Your task to perform on an android device: toggle translation in the chrome app Image 0: 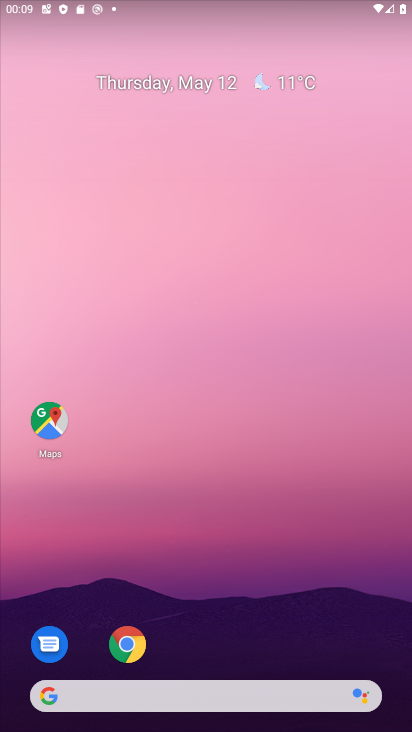
Step 0: click (126, 636)
Your task to perform on an android device: toggle translation in the chrome app Image 1: 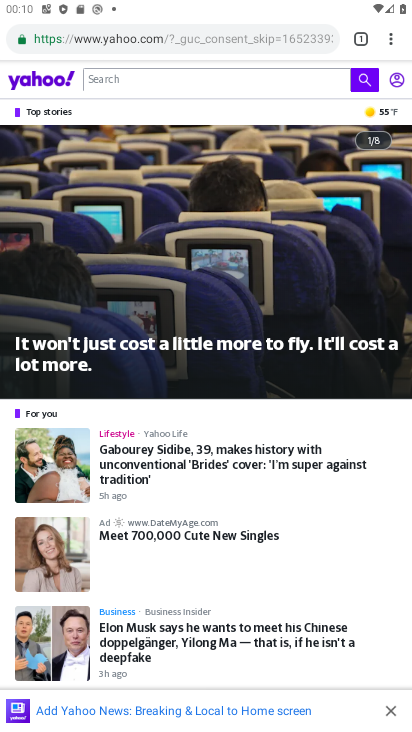
Step 1: click (390, 34)
Your task to perform on an android device: toggle translation in the chrome app Image 2: 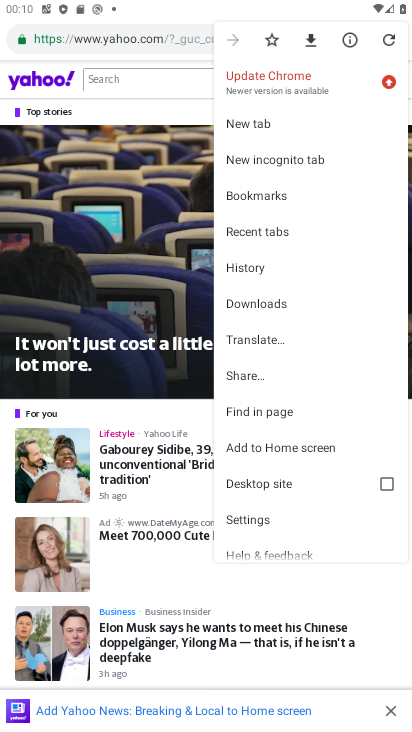
Step 2: click (276, 519)
Your task to perform on an android device: toggle translation in the chrome app Image 3: 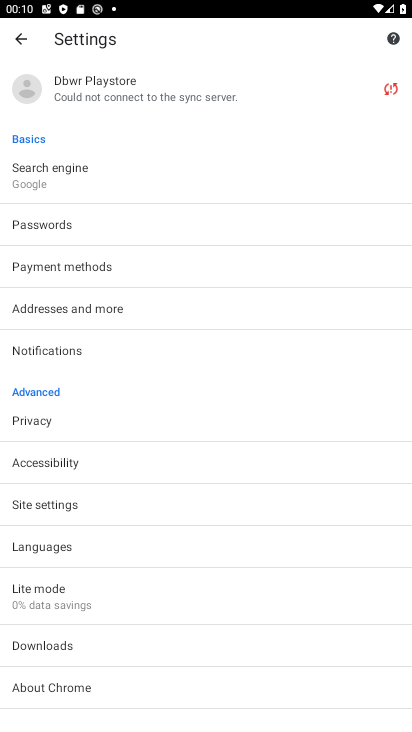
Step 3: click (87, 545)
Your task to perform on an android device: toggle translation in the chrome app Image 4: 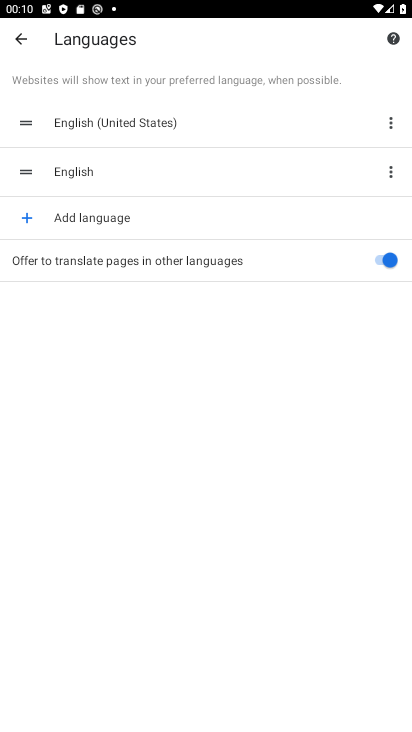
Step 4: click (380, 257)
Your task to perform on an android device: toggle translation in the chrome app Image 5: 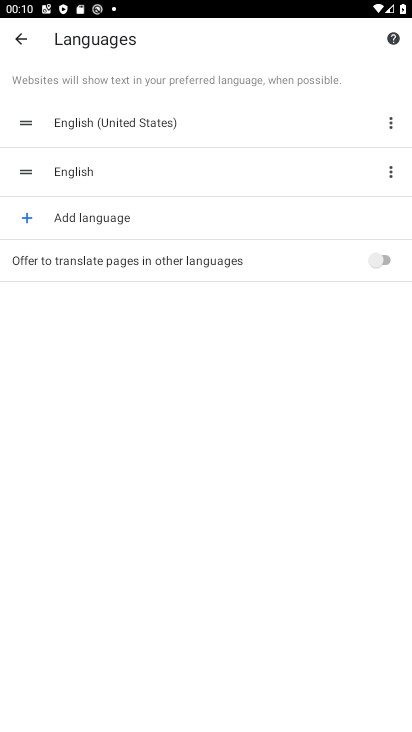
Step 5: task complete